Your task to perform on an android device: Do I have any events this weekend? Image 0: 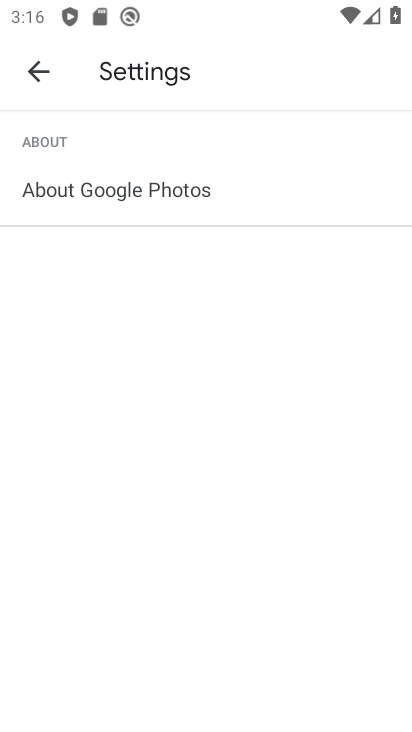
Step 0: press home button
Your task to perform on an android device: Do I have any events this weekend? Image 1: 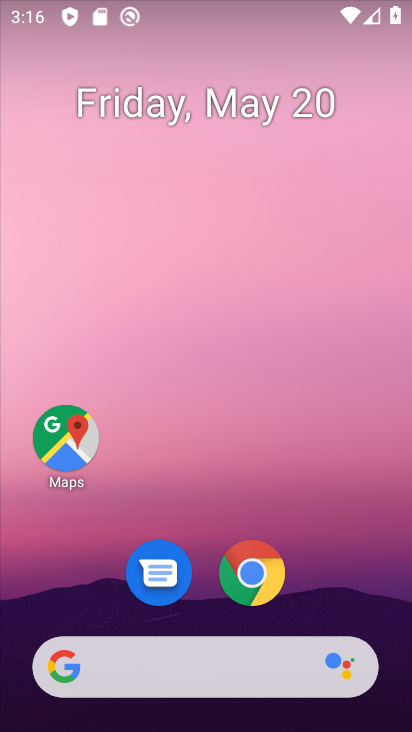
Step 1: drag from (196, 638) to (108, 50)
Your task to perform on an android device: Do I have any events this weekend? Image 2: 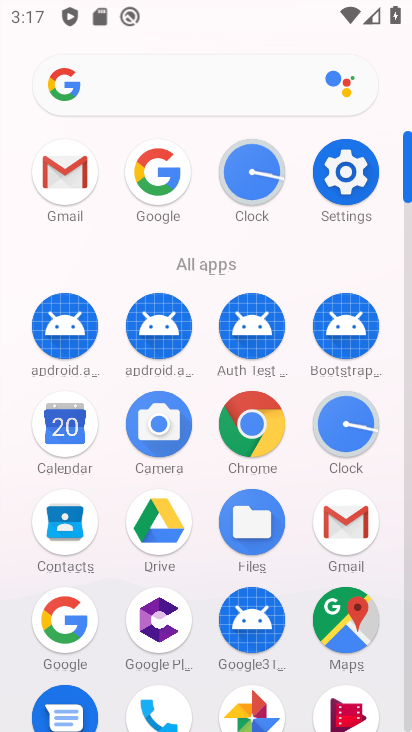
Step 2: click (76, 440)
Your task to perform on an android device: Do I have any events this weekend? Image 3: 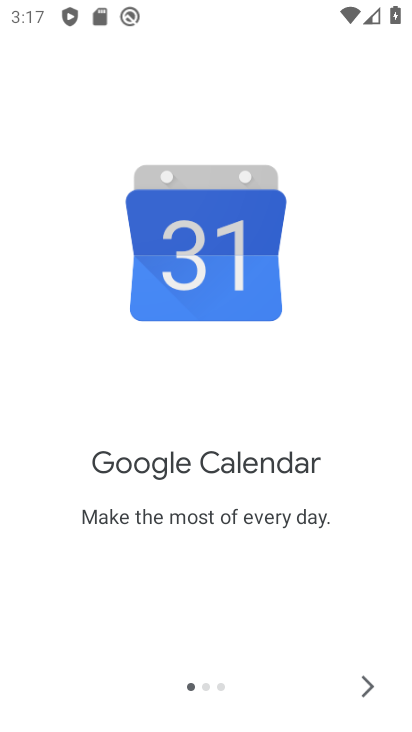
Step 3: click (353, 679)
Your task to perform on an android device: Do I have any events this weekend? Image 4: 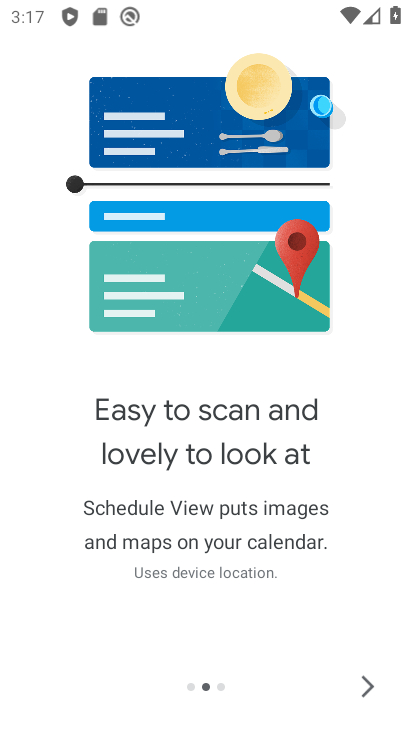
Step 4: click (357, 679)
Your task to perform on an android device: Do I have any events this weekend? Image 5: 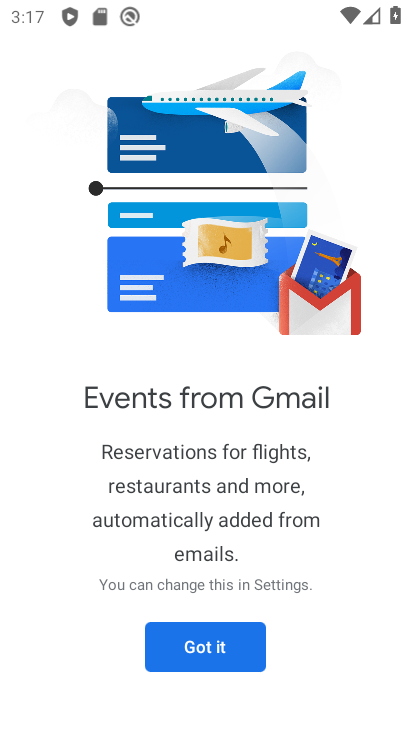
Step 5: click (232, 640)
Your task to perform on an android device: Do I have any events this weekend? Image 6: 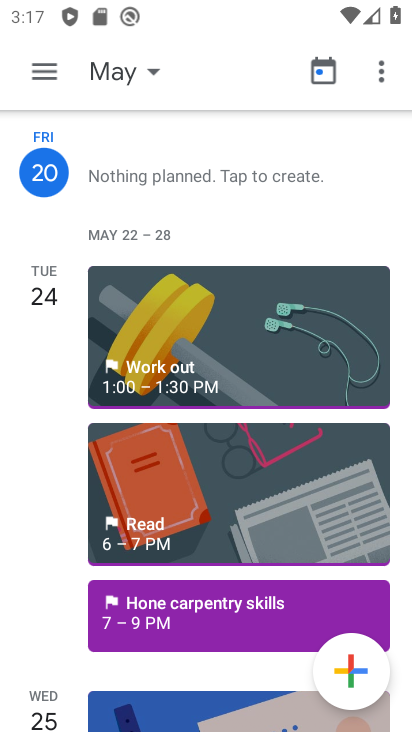
Step 6: click (44, 78)
Your task to perform on an android device: Do I have any events this weekend? Image 7: 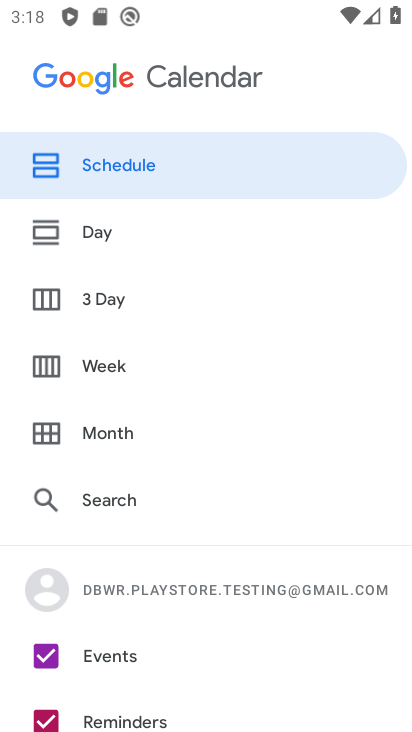
Step 7: click (122, 370)
Your task to perform on an android device: Do I have any events this weekend? Image 8: 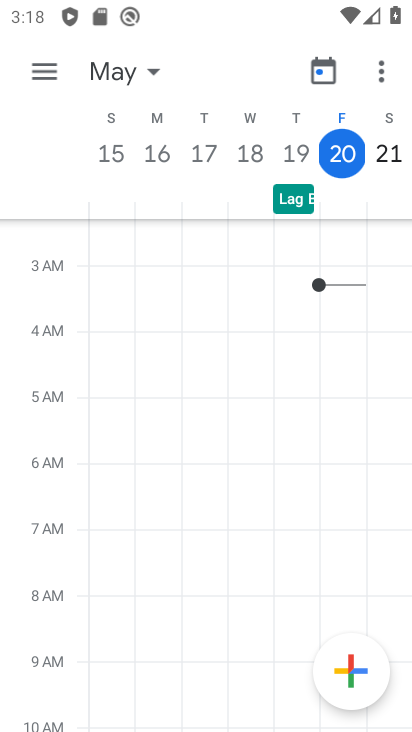
Step 8: task complete